Your task to perform on an android device: Find coffee shops on Maps Image 0: 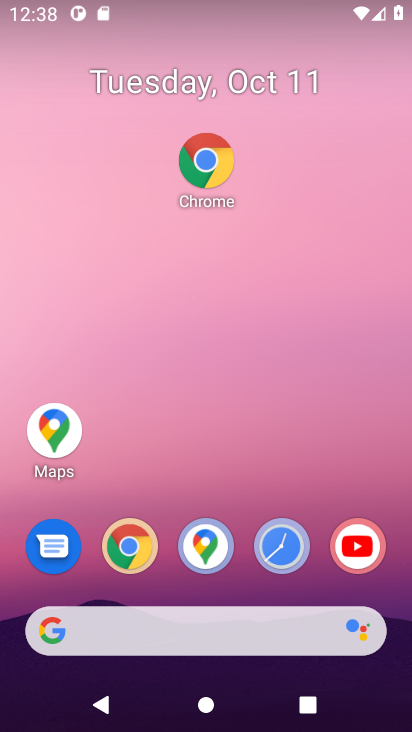
Step 0: click (207, 541)
Your task to perform on an android device: Find coffee shops on Maps Image 1: 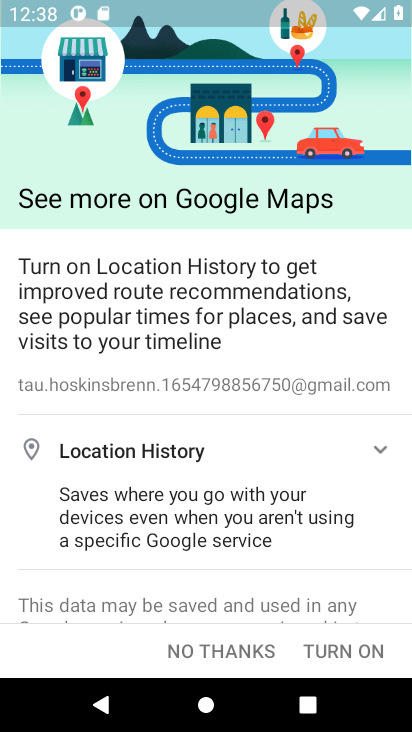
Step 1: press back button
Your task to perform on an android device: Find coffee shops on Maps Image 2: 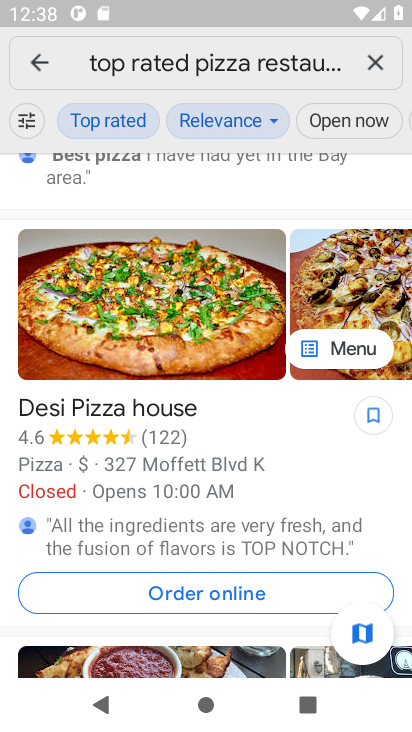
Step 2: click (375, 66)
Your task to perform on an android device: Find coffee shops on Maps Image 3: 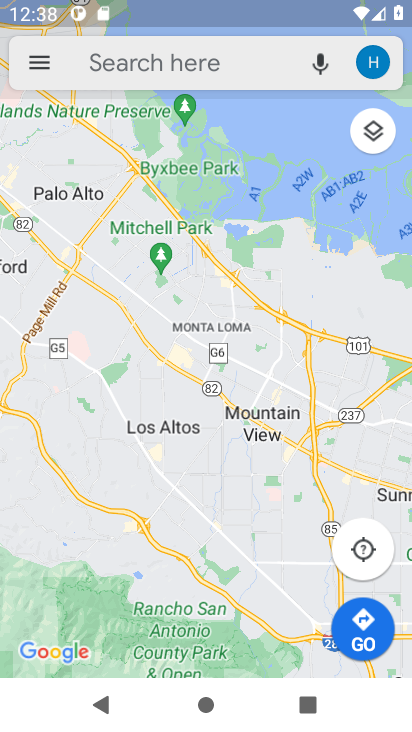
Step 3: click (215, 70)
Your task to perform on an android device: Find coffee shops on Maps Image 4: 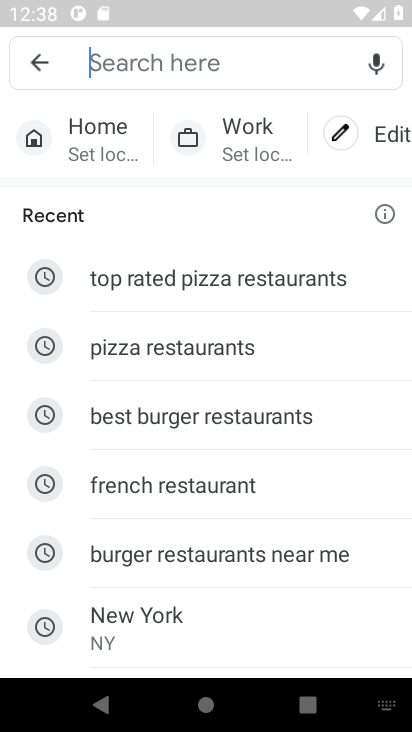
Step 4: type "coffee shops"
Your task to perform on an android device: Find coffee shops on Maps Image 5: 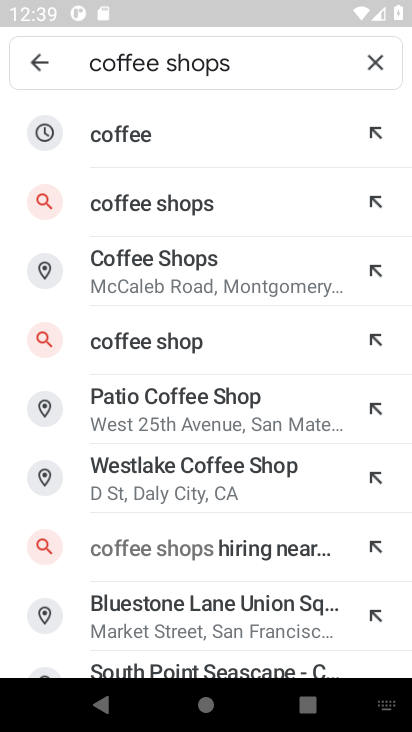
Step 5: press enter
Your task to perform on an android device: Find coffee shops on Maps Image 6: 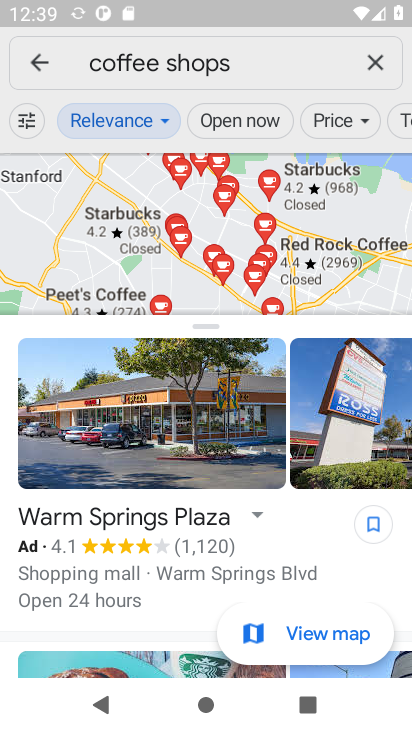
Step 6: task complete